Your task to perform on an android device: Open the calendar app, open the side menu, and click the "Day" option Image 0: 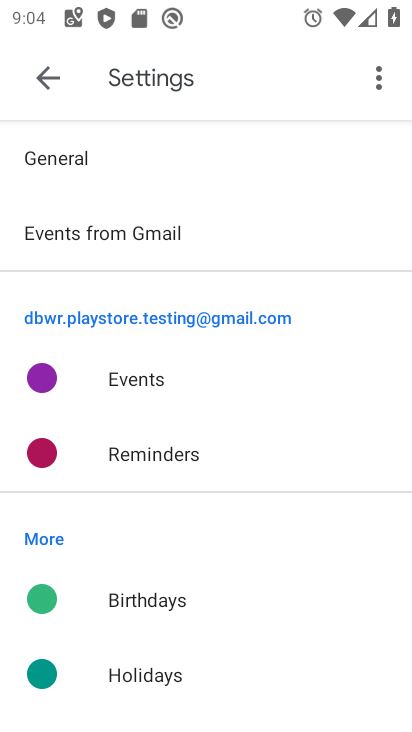
Step 0: press home button
Your task to perform on an android device: Open the calendar app, open the side menu, and click the "Day" option Image 1: 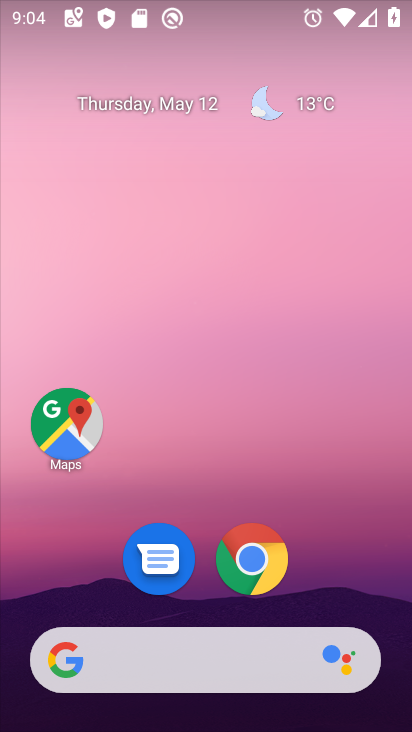
Step 1: drag from (81, 609) to (192, 102)
Your task to perform on an android device: Open the calendar app, open the side menu, and click the "Day" option Image 2: 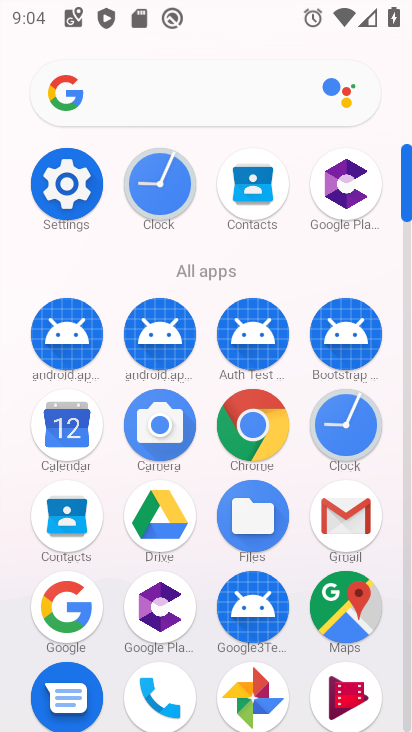
Step 2: click (72, 424)
Your task to perform on an android device: Open the calendar app, open the side menu, and click the "Day" option Image 3: 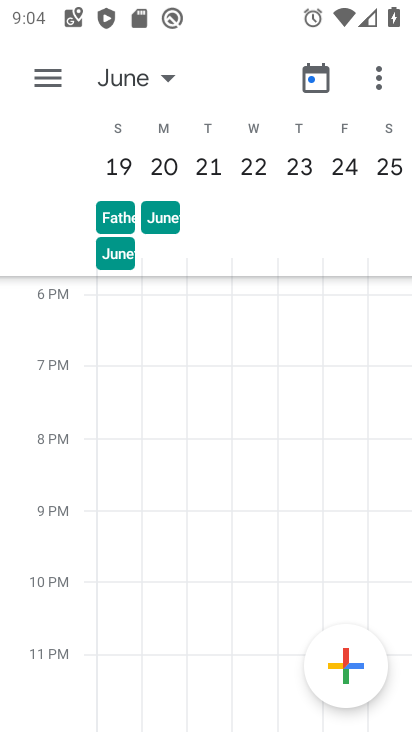
Step 3: click (53, 85)
Your task to perform on an android device: Open the calendar app, open the side menu, and click the "Day" option Image 4: 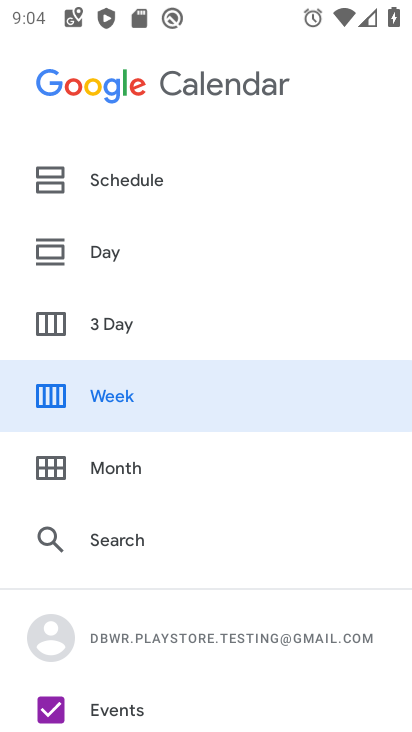
Step 4: click (172, 270)
Your task to perform on an android device: Open the calendar app, open the side menu, and click the "Day" option Image 5: 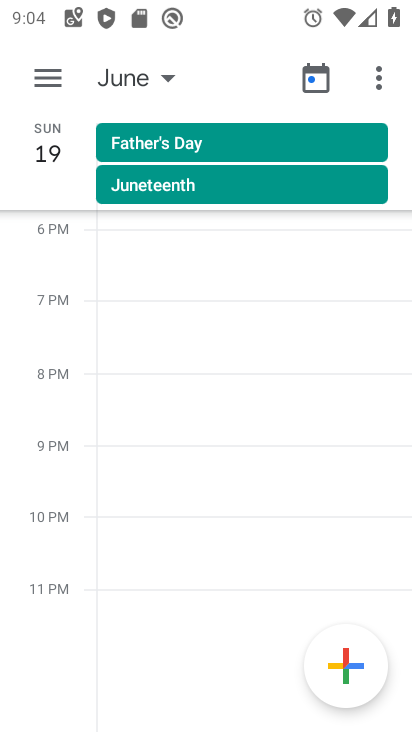
Step 5: task complete